Your task to perform on an android device: manage bookmarks in the chrome app Image 0: 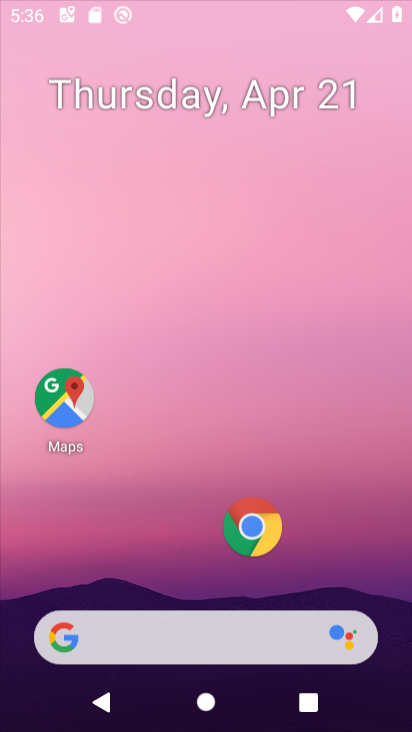
Step 0: drag from (219, 387) to (318, 58)
Your task to perform on an android device: manage bookmarks in the chrome app Image 1: 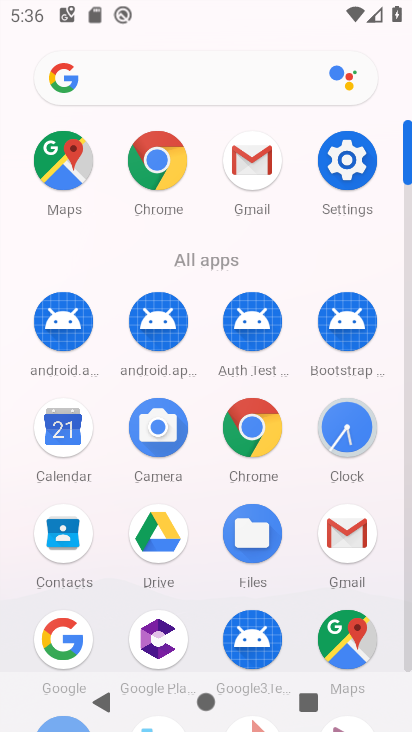
Step 1: click (252, 434)
Your task to perform on an android device: manage bookmarks in the chrome app Image 2: 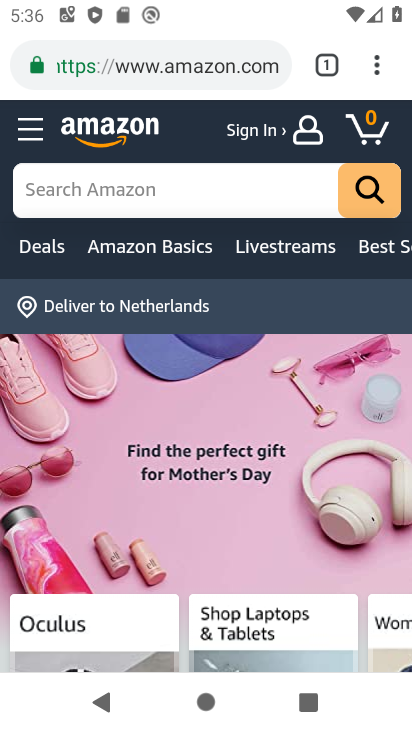
Step 2: task complete